Your task to perform on an android device: Toggle the flashlight Image 0: 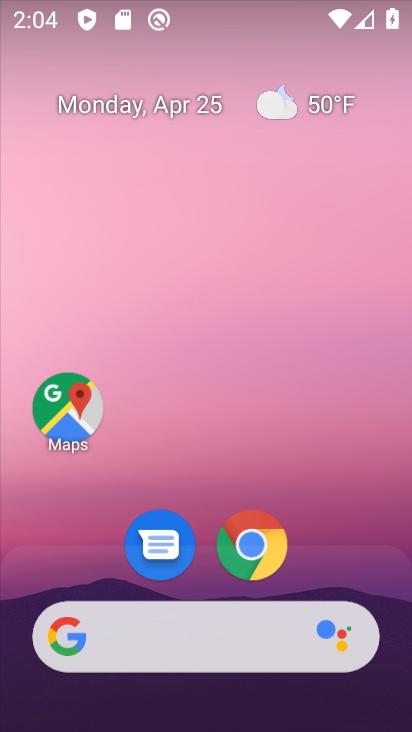
Step 0: drag from (248, 11) to (242, 382)
Your task to perform on an android device: Toggle the flashlight Image 1: 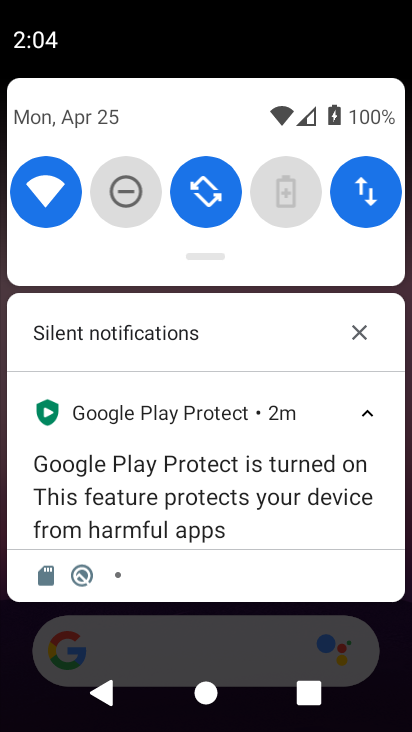
Step 1: task complete